Your task to perform on an android device: What's the weather today? Image 0: 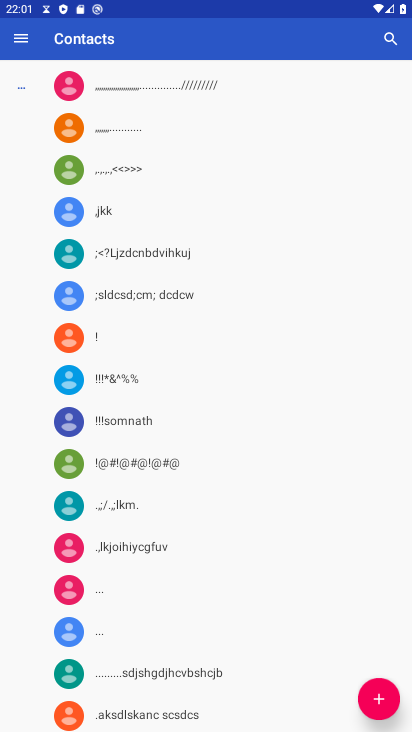
Step 0: press home button
Your task to perform on an android device: What's the weather today? Image 1: 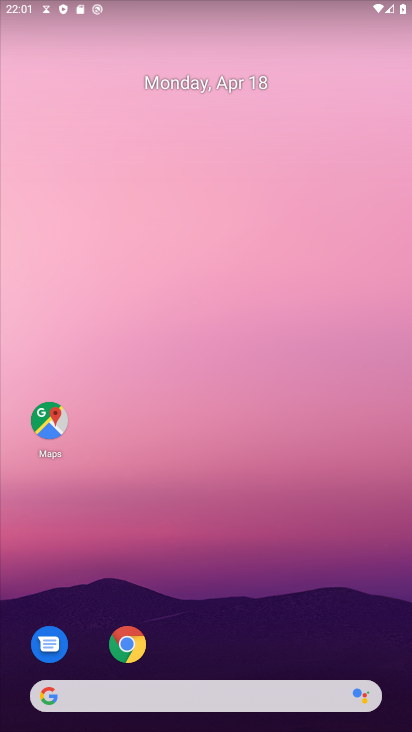
Step 1: click (148, 688)
Your task to perform on an android device: What's the weather today? Image 2: 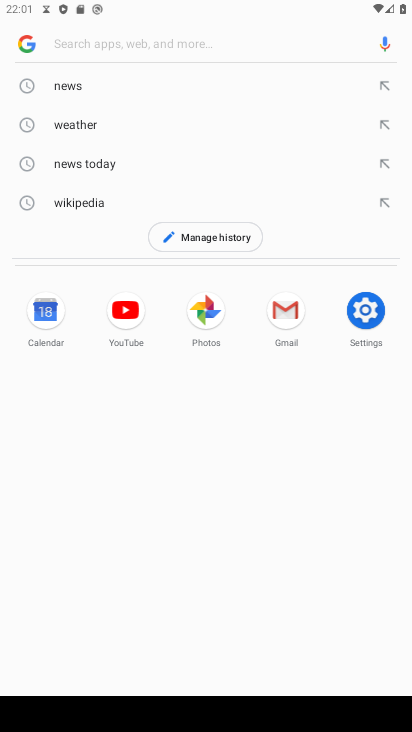
Step 2: click (81, 128)
Your task to perform on an android device: What's the weather today? Image 3: 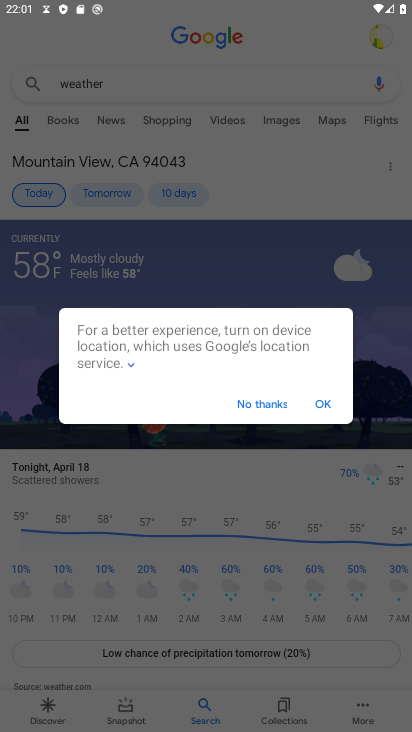
Step 3: click (262, 410)
Your task to perform on an android device: What's the weather today? Image 4: 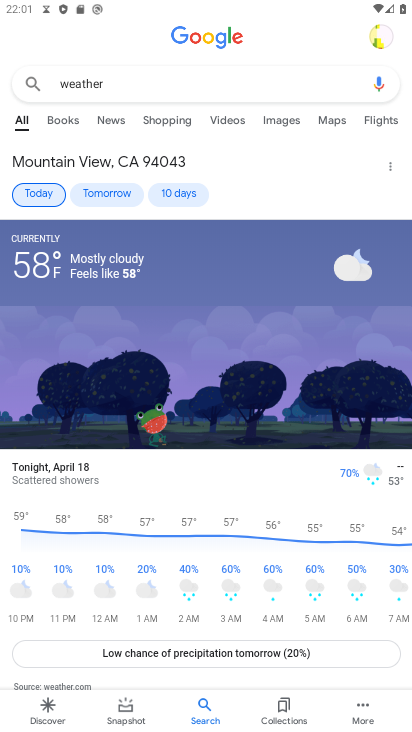
Step 4: task complete